Your task to perform on an android device: Open the map Image 0: 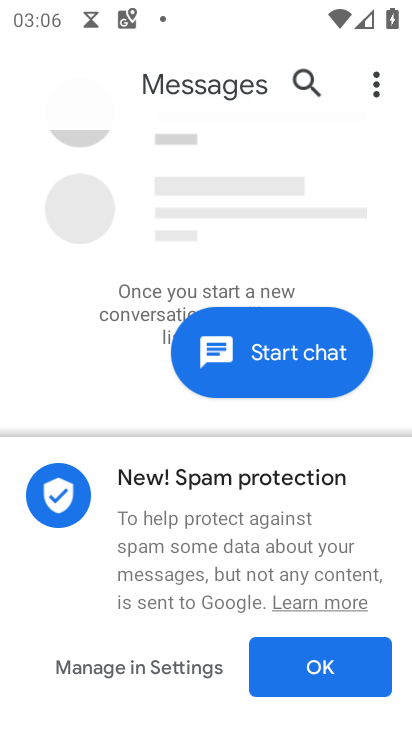
Step 0: press home button
Your task to perform on an android device: Open the map Image 1: 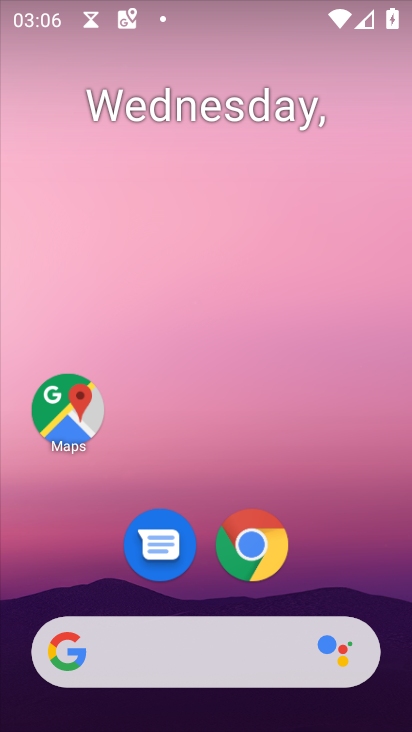
Step 1: click (71, 427)
Your task to perform on an android device: Open the map Image 2: 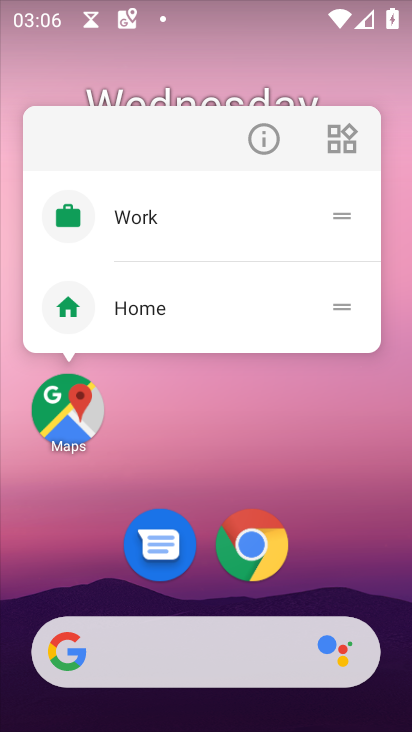
Step 2: click (71, 427)
Your task to perform on an android device: Open the map Image 3: 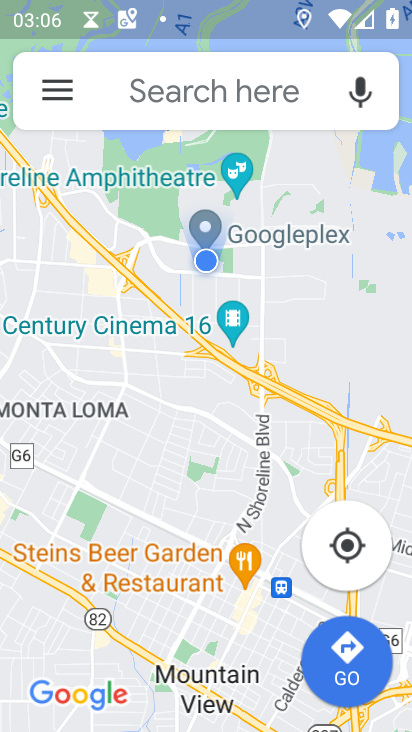
Step 3: task complete